Your task to perform on an android device: open a bookmark in the chrome app Image 0: 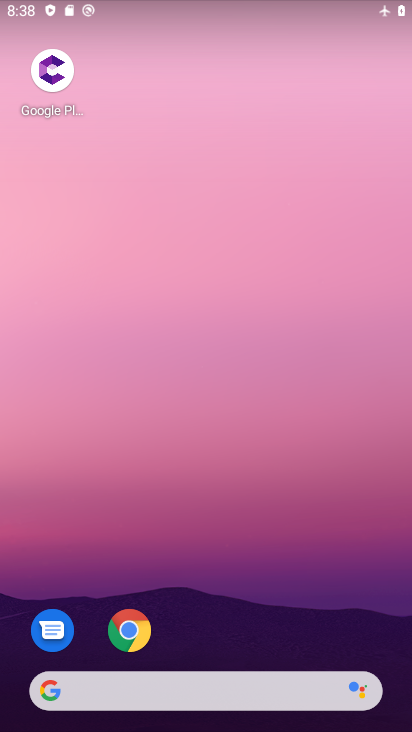
Step 0: click (129, 637)
Your task to perform on an android device: open a bookmark in the chrome app Image 1: 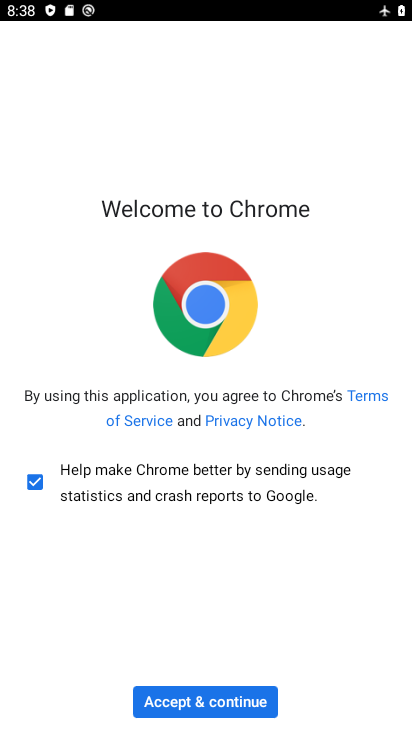
Step 1: click (236, 702)
Your task to perform on an android device: open a bookmark in the chrome app Image 2: 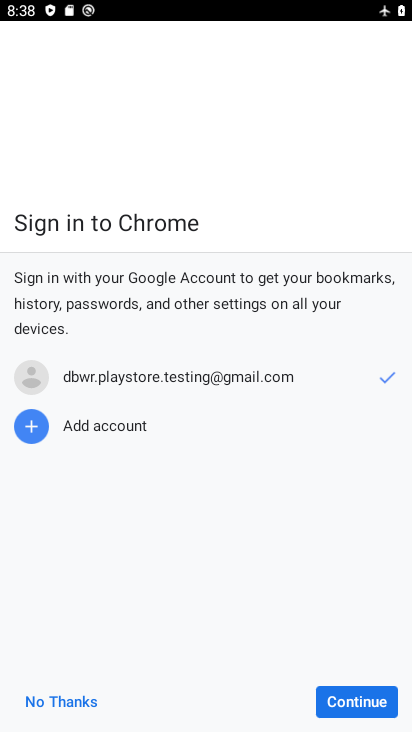
Step 2: click (343, 706)
Your task to perform on an android device: open a bookmark in the chrome app Image 3: 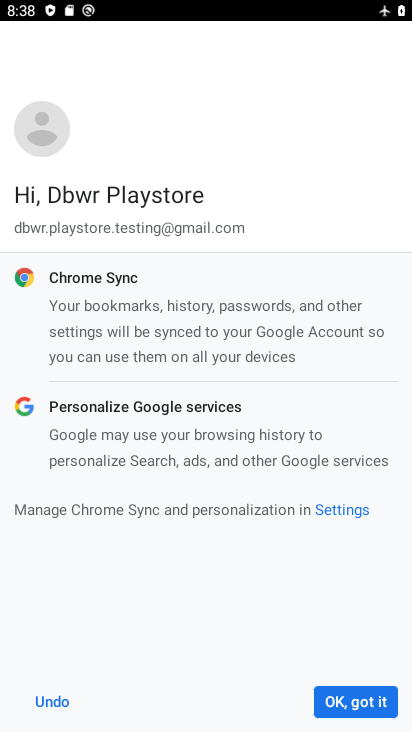
Step 3: click (343, 706)
Your task to perform on an android device: open a bookmark in the chrome app Image 4: 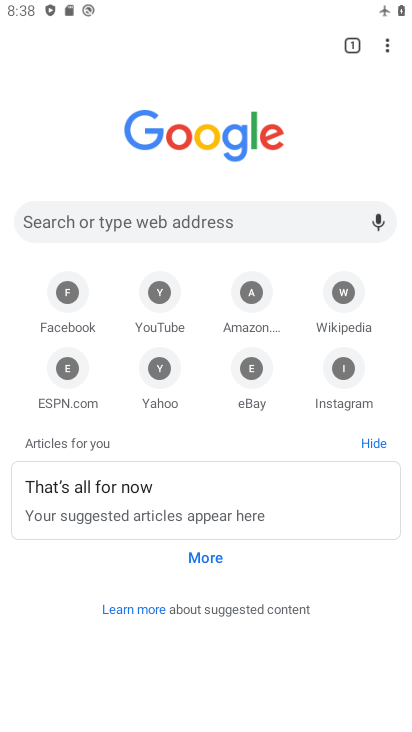
Step 4: click (387, 42)
Your task to perform on an android device: open a bookmark in the chrome app Image 5: 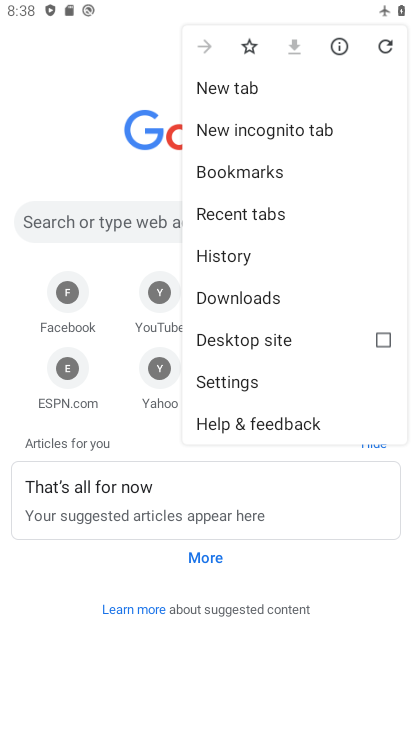
Step 5: click (241, 377)
Your task to perform on an android device: open a bookmark in the chrome app Image 6: 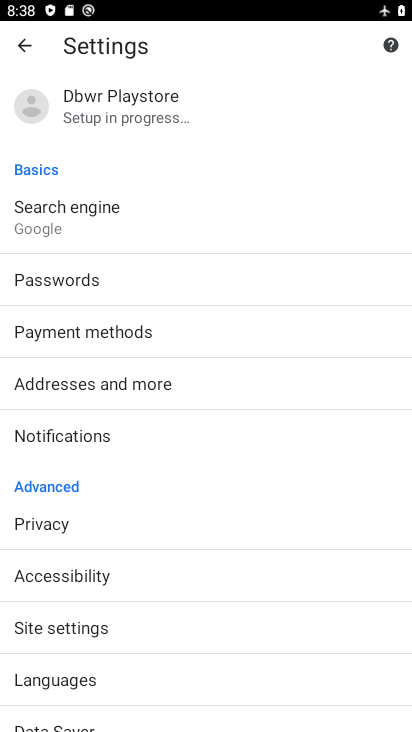
Step 6: task complete